Your task to perform on an android device: Open the stopwatch Image 0: 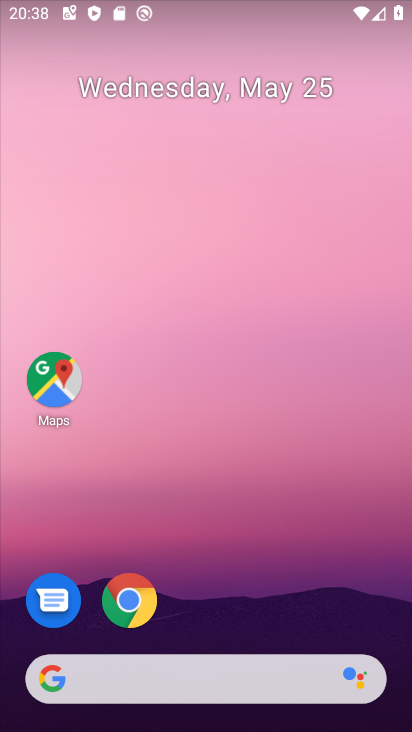
Step 0: press home button
Your task to perform on an android device: Open the stopwatch Image 1: 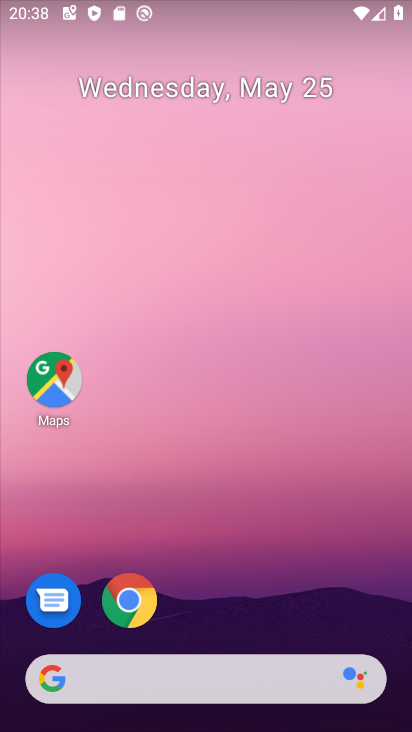
Step 1: drag from (376, 575) to (297, 145)
Your task to perform on an android device: Open the stopwatch Image 2: 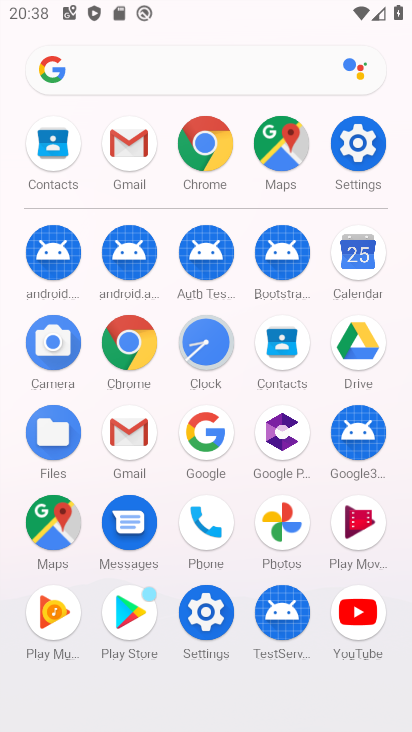
Step 2: click (186, 350)
Your task to perform on an android device: Open the stopwatch Image 3: 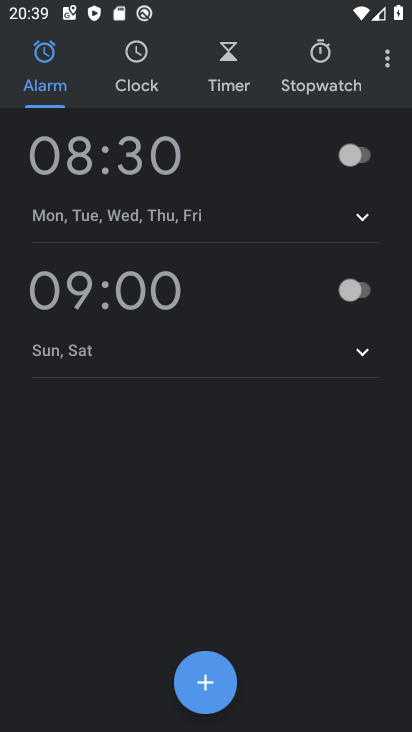
Step 3: click (317, 64)
Your task to perform on an android device: Open the stopwatch Image 4: 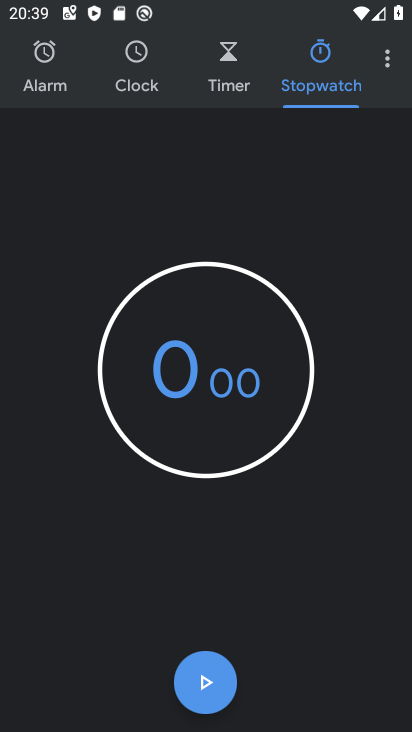
Step 4: click (205, 691)
Your task to perform on an android device: Open the stopwatch Image 5: 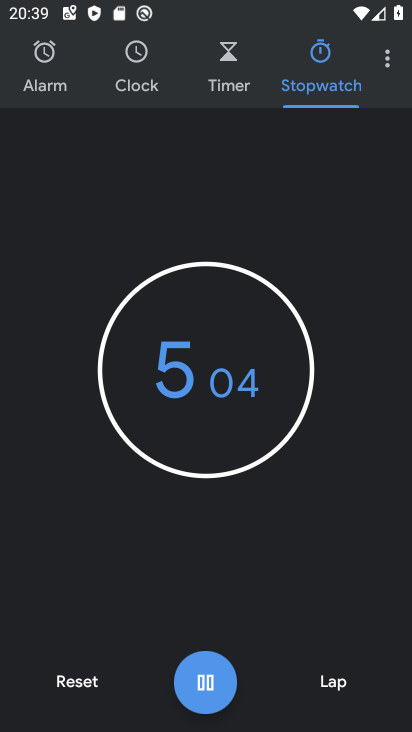
Step 5: click (215, 694)
Your task to perform on an android device: Open the stopwatch Image 6: 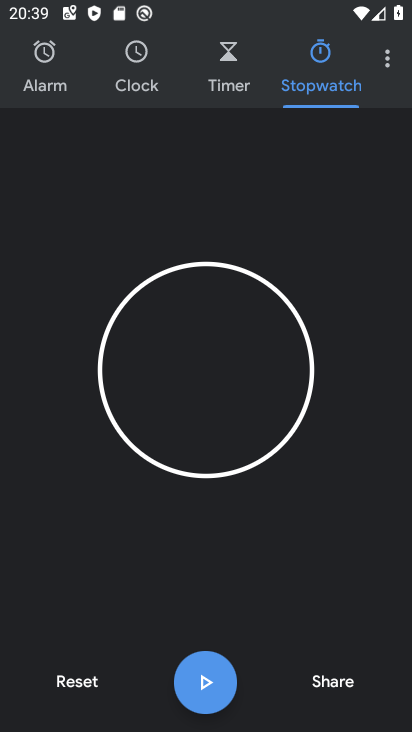
Step 6: task complete